Your task to perform on an android device: snooze an email in the gmail app Image 0: 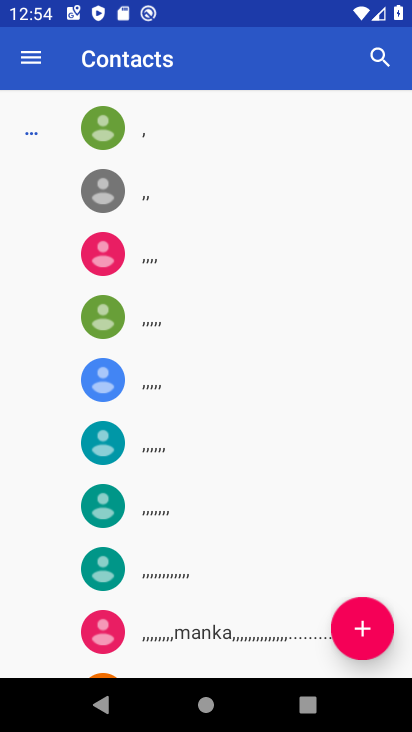
Step 0: press home button
Your task to perform on an android device: snooze an email in the gmail app Image 1: 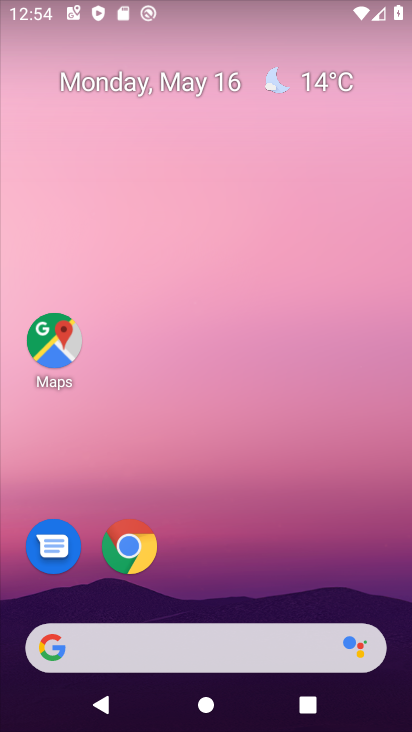
Step 1: drag from (254, 668) to (333, 242)
Your task to perform on an android device: snooze an email in the gmail app Image 2: 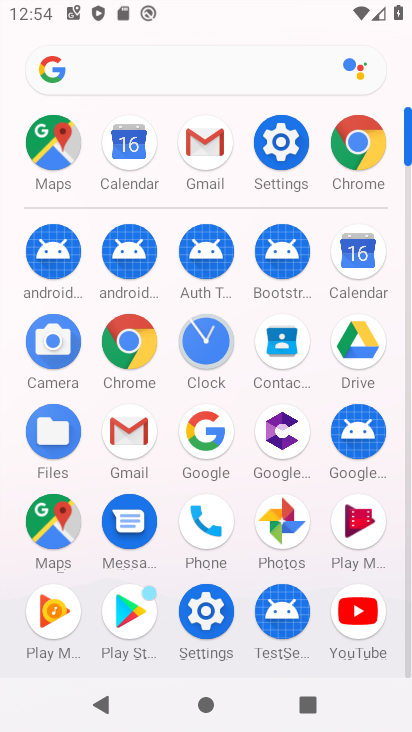
Step 2: click (134, 444)
Your task to perform on an android device: snooze an email in the gmail app Image 3: 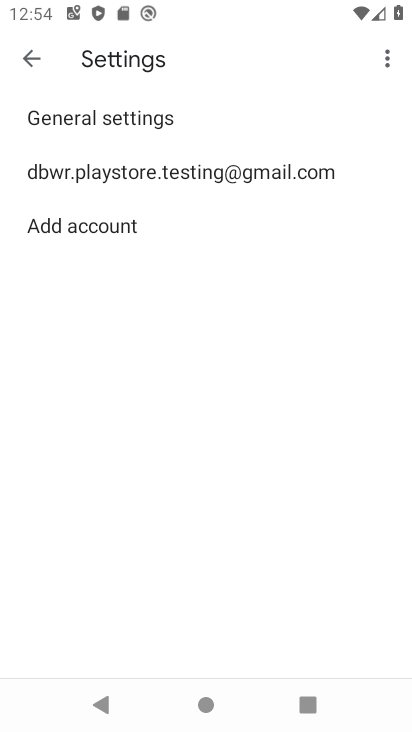
Step 3: click (25, 72)
Your task to perform on an android device: snooze an email in the gmail app Image 4: 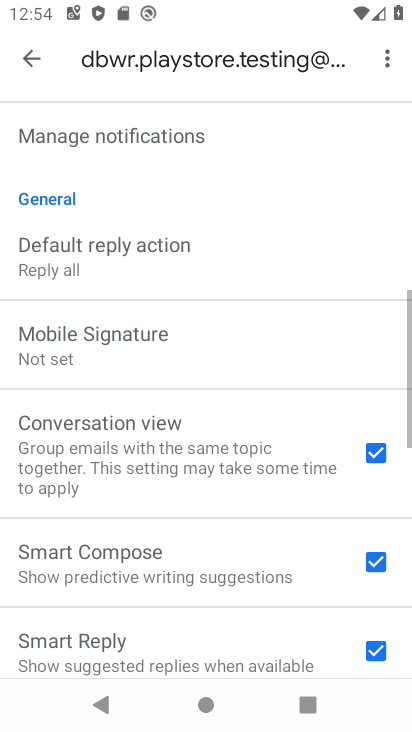
Step 4: click (25, 72)
Your task to perform on an android device: snooze an email in the gmail app Image 5: 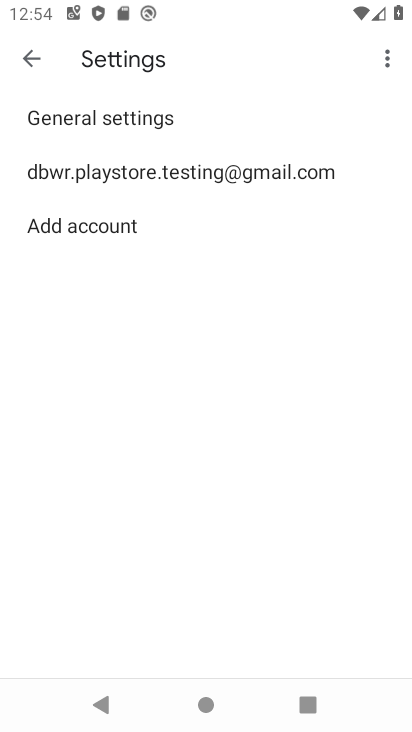
Step 5: click (28, 67)
Your task to perform on an android device: snooze an email in the gmail app Image 6: 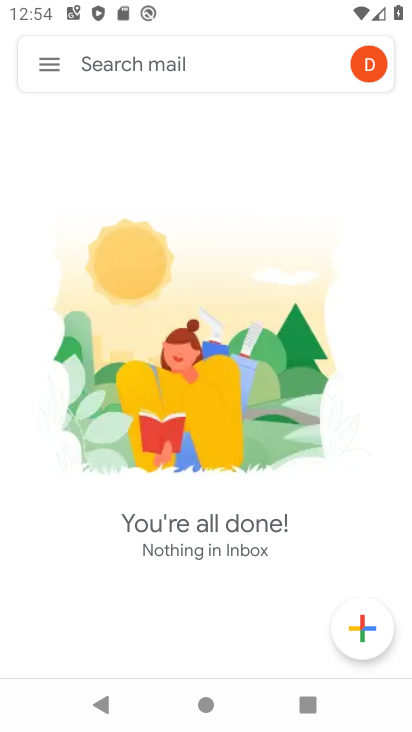
Step 6: click (56, 65)
Your task to perform on an android device: snooze an email in the gmail app Image 7: 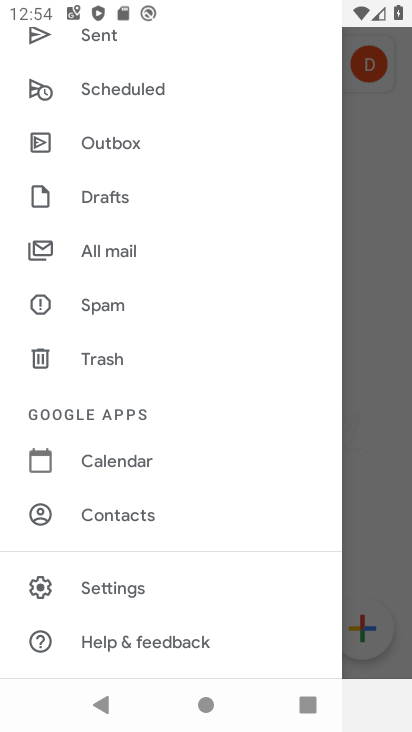
Step 7: drag from (133, 172) to (88, 410)
Your task to perform on an android device: snooze an email in the gmail app Image 8: 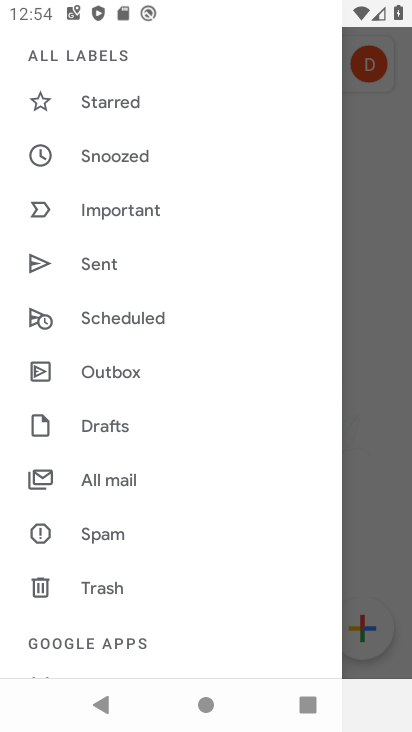
Step 8: click (96, 173)
Your task to perform on an android device: snooze an email in the gmail app Image 9: 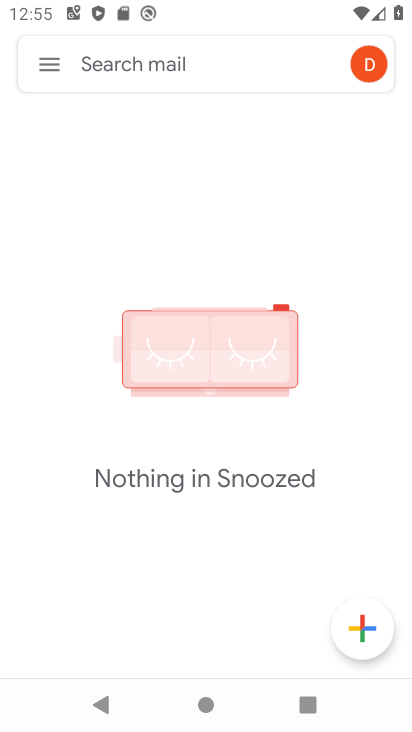
Step 9: task complete